Your task to perform on an android device: change your default location settings in chrome Image 0: 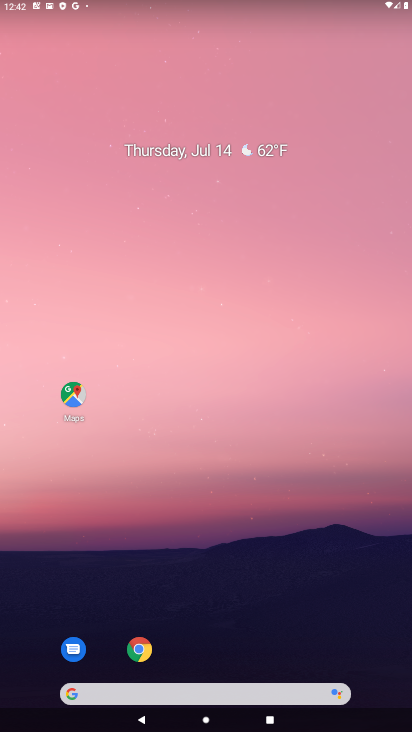
Step 0: drag from (344, 633) to (135, 21)
Your task to perform on an android device: change your default location settings in chrome Image 1: 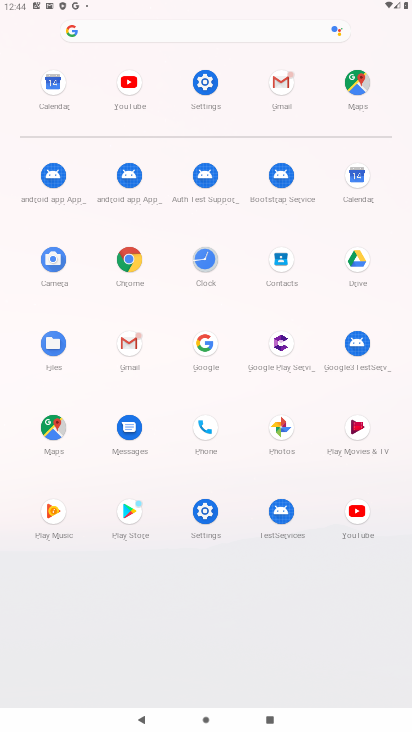
Step 1: click (131, 259)
Your task to perform on an android device: change your default location settings in chrome Image 2: 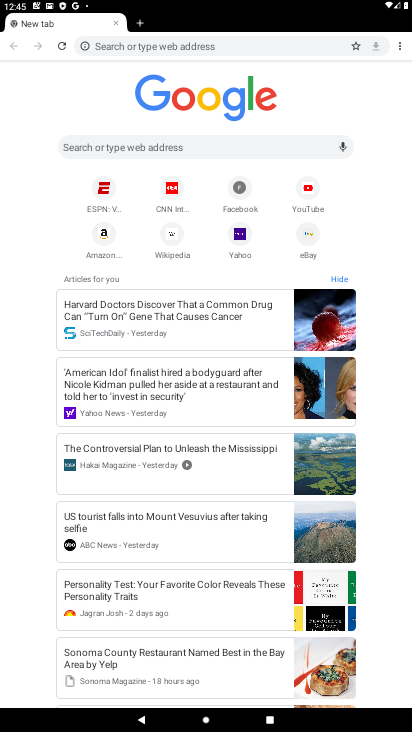
Step 2: click (396, 39)
Your task to perform on an android device: change your default location settings in chrome Image 3: 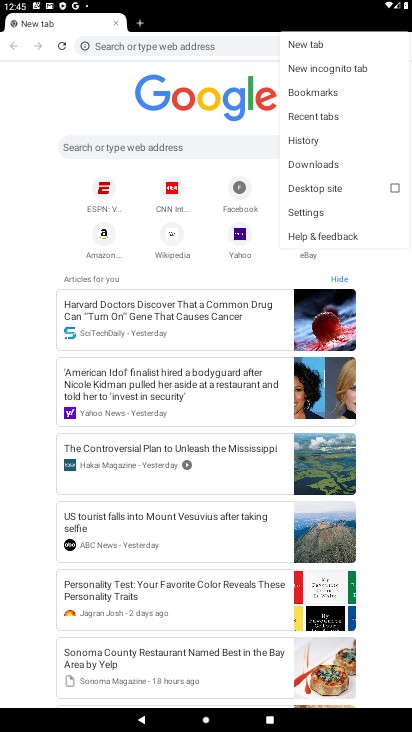
Step 3: click (300, 210)
Your task to perform on an android device: change your default location settings in chrome Image 4: 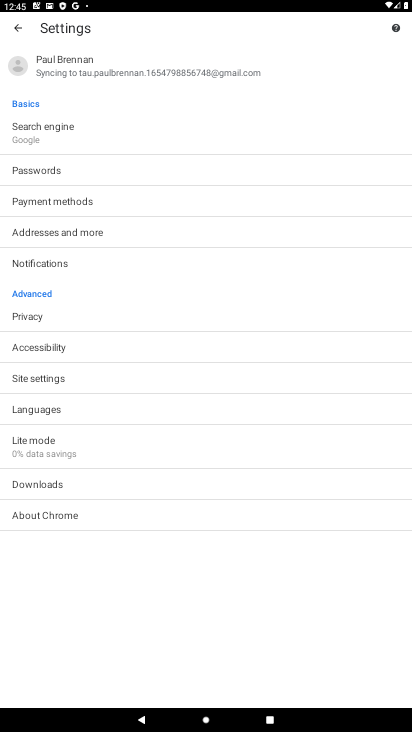
Step 4: click (57, 140)
Your task to perform on an android device: change your default location settings in chrome Image 5: 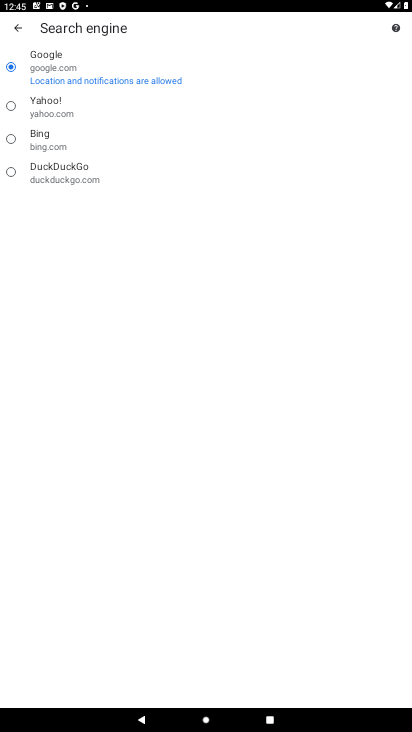
Step 5: click (47, 131)
Your task to perform on an android device: change your default location settings in chrome Image 6: 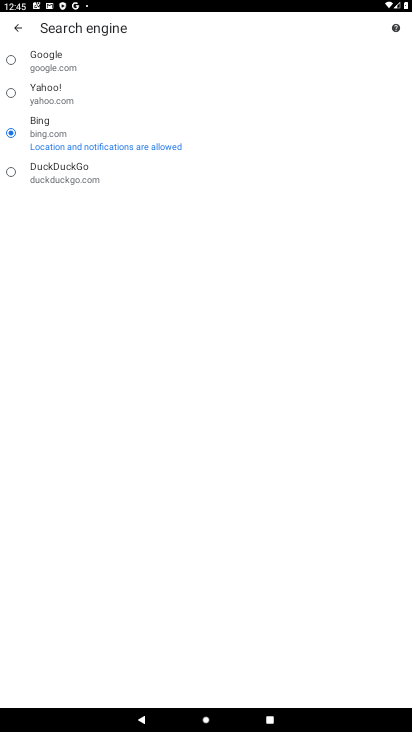
Step 6: task complete